Your task to perform on an android device: Open Yahoo.com Image 0: 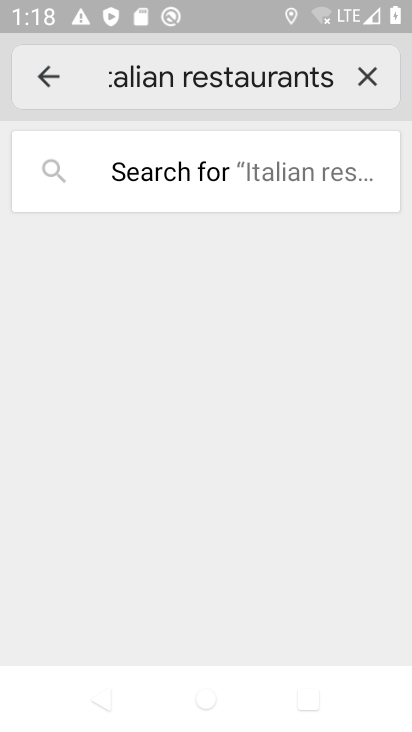
Step 0: press home button
Your task to perform on an android device: Open Yahoo.com Image 1: 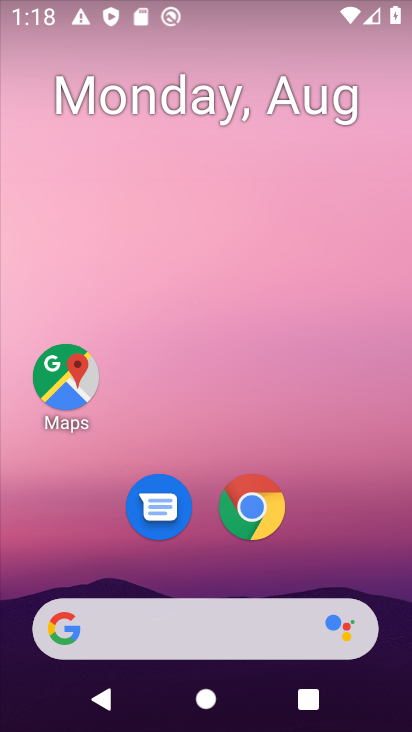
Step 1: click (251, 501)
Your task to perform on an android device: Open Yahoo.com Image 2: 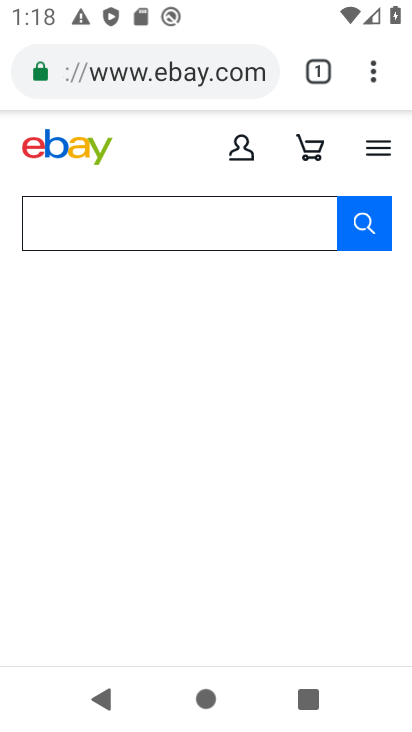
Step 2: click (314, 71)
Your task to perform on an android device: Open Yahoo.com Image 3: 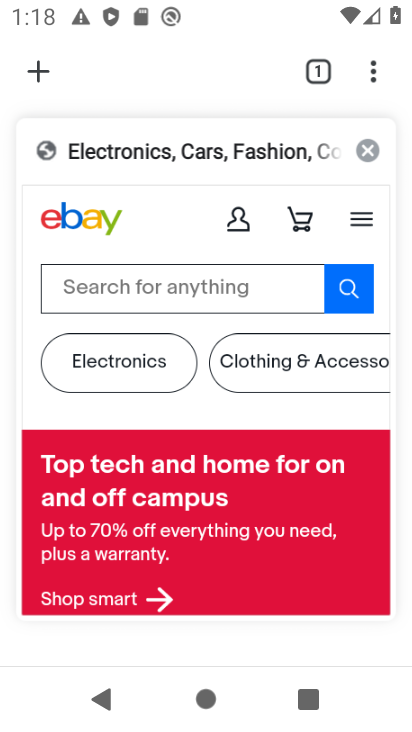
Step 3: click (41, 71)
Your task to perform on an android device: Open Yahoo.com Image 4: 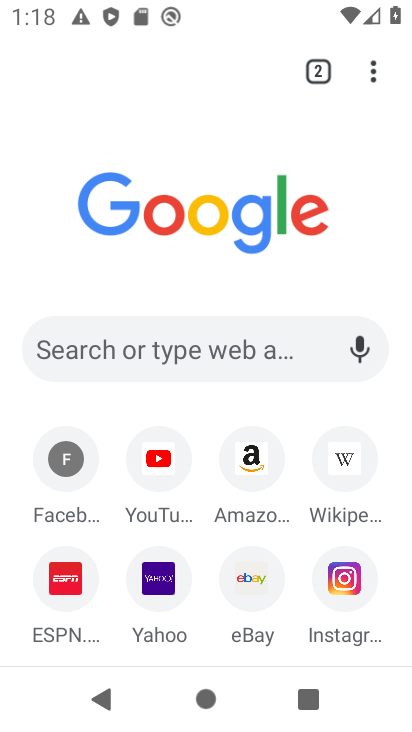
Step 4: click (163, 575)
Your task to perform on an android device: Open Yahoo.com Image 5: 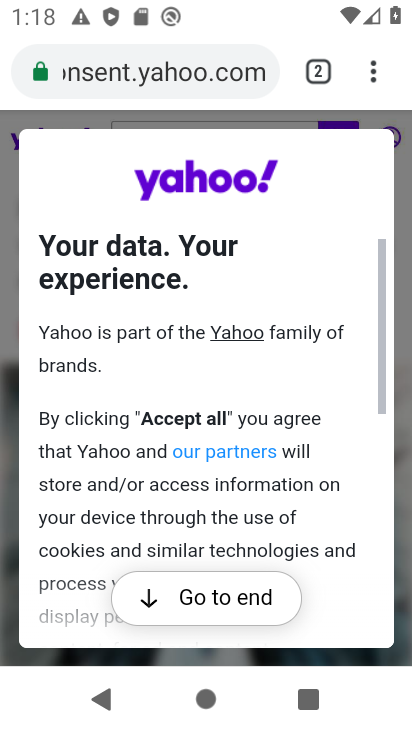
Step 5: click (200, 603)
Your task to perform on an android device: Open Yahoo.com Image 6: 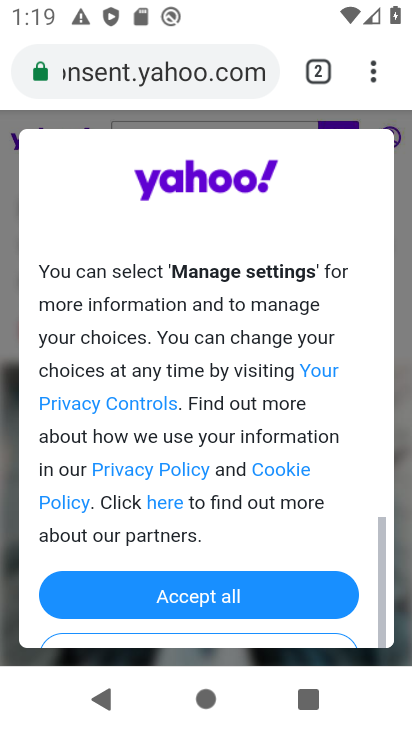
Step 6: click (180, 598)
Your task to perform on an android device: Open Yahoo.com Image 7: 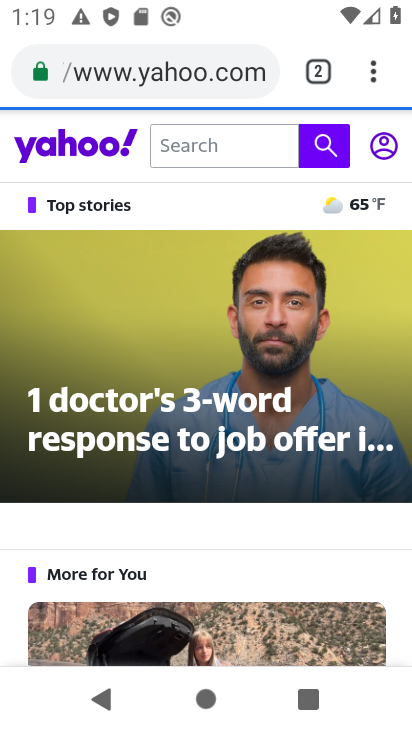
Step 7: task complete